Your task to perform on an android device: What is the news today? Image 0: 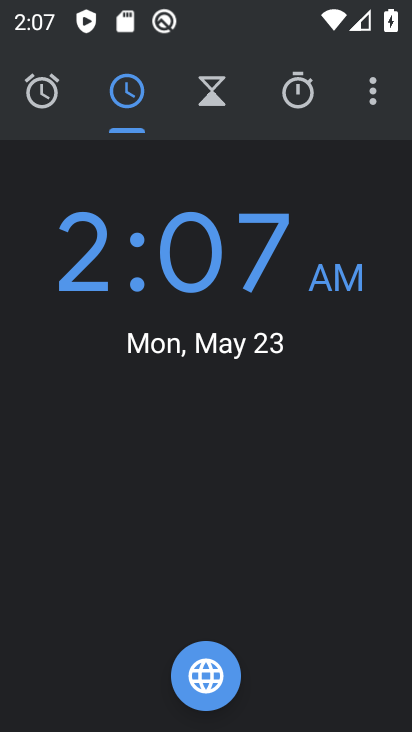
Step 0: press back button
Your task to perform on an android device: What is the news today? Image 1: 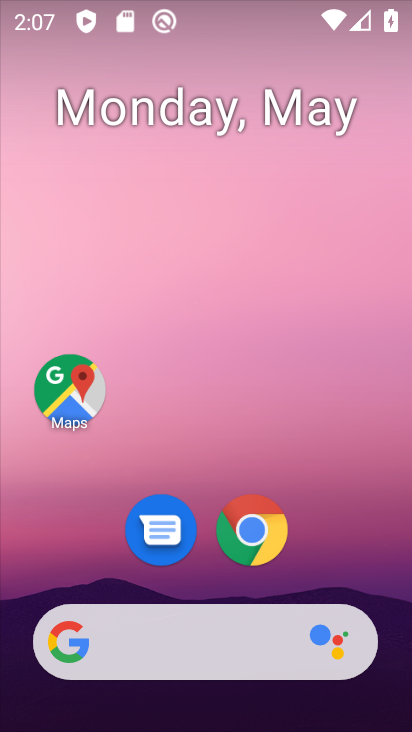
Step 1: click (214, 620)
Your task to perform on an android device: What is the news today? Image 2: 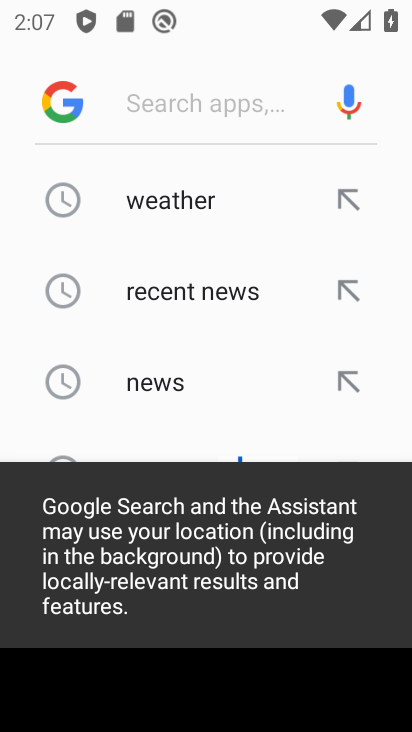
Step 2: click (144, 92)
Your task to perform on an android device: What is the news today? Image 3: 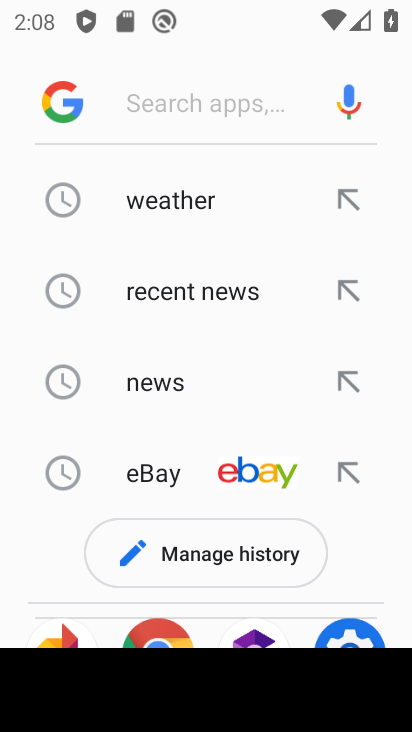
Step 3: type "news today"
Your task to perform on an android device: What is the news today? Image 4: 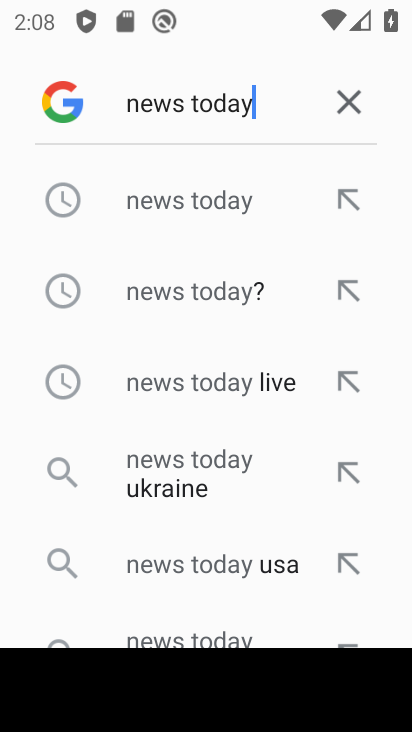
Step 4: click (239, 184)
Your task to perform on an android device: What is the news today? Image 5: 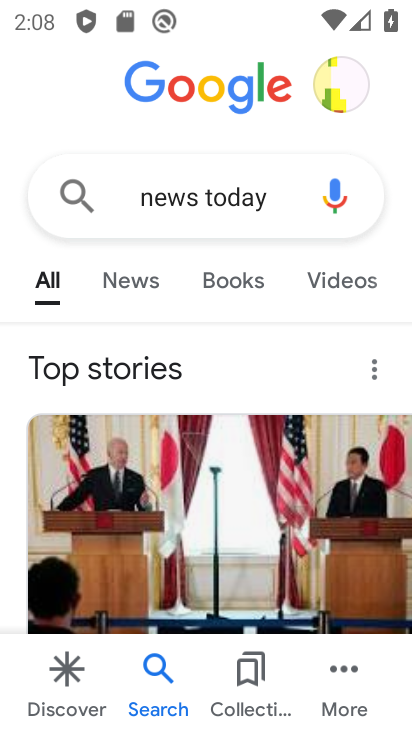
Step 5: task complete